Your task to perform on an android device: delete browsing data in the chrome app Image 0: 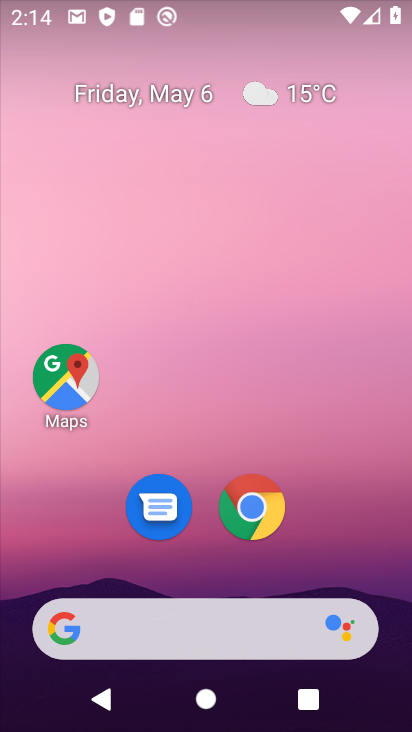
Step 0: click (230, 510)
Your task to perform on an android device: delete browsing data in the chrome app Image 1: 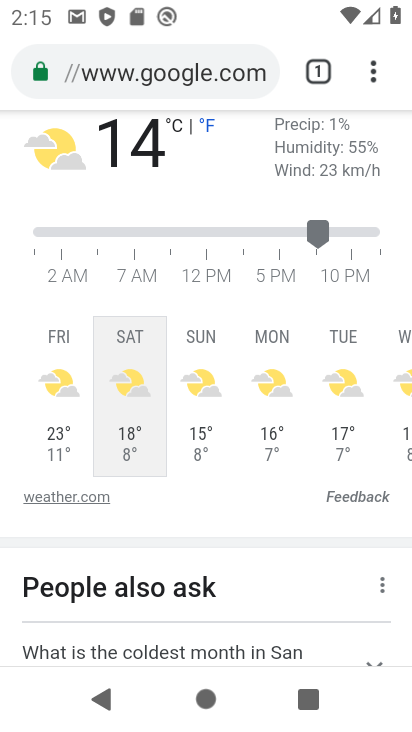
Step 1: click (192, 71)
Your task to perform on an android device: delete browsing data in the chrome app Image 2: 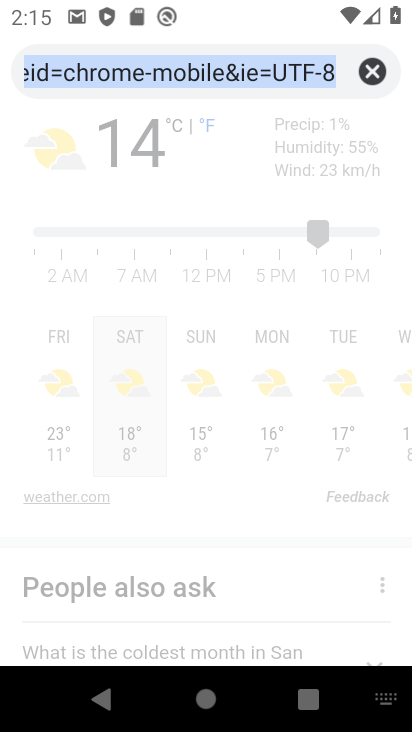
Step 2: click (373, 72)
Your task to perform on an android device: delete browsing data in the chrome app Image 3: 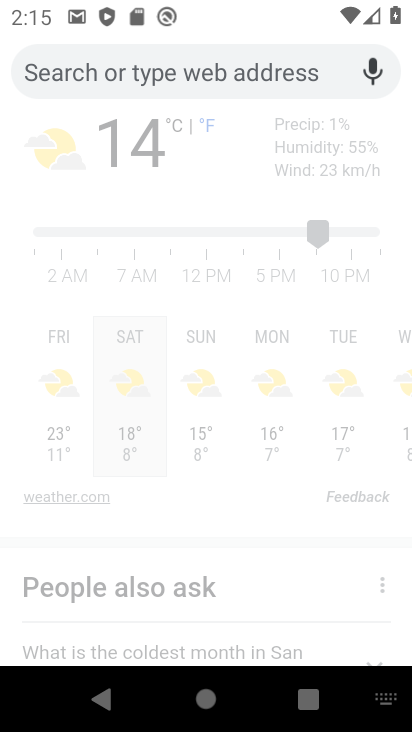
Step 3: press back button
Your task to perform on an android device: delete browsing data in the chrome app Image 4: 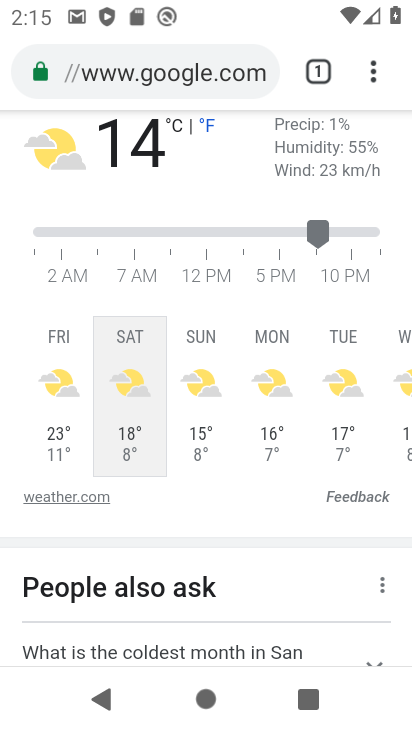
Step 4: click (372, 75)
Your task to perform on an android device: delete browsing data in the chrome app Image 5: 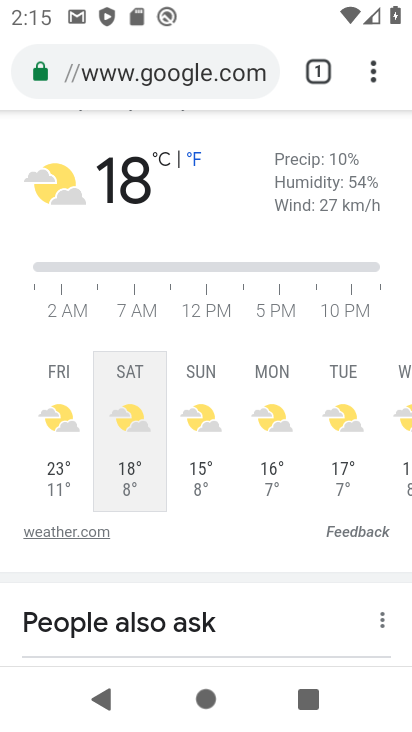
Step 5: drag from (374, 71) to (293, 406)
Your task to perform on an android device: delete browsing data in the chrome app Image 6: 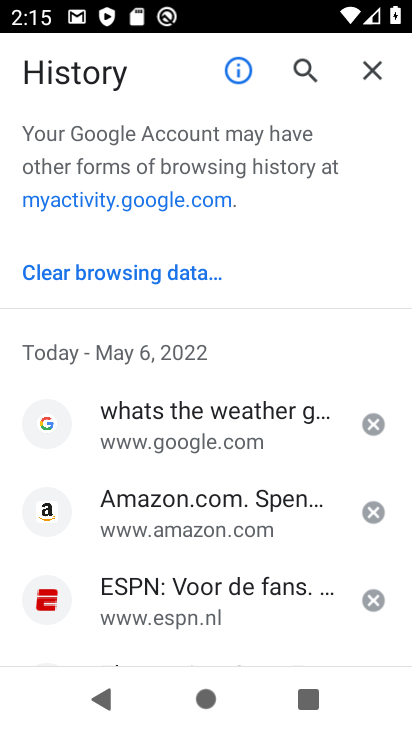
Step 6: click (94, 274)
Your task to perform on an android device: delete browsing data in the chrome app Image 7: 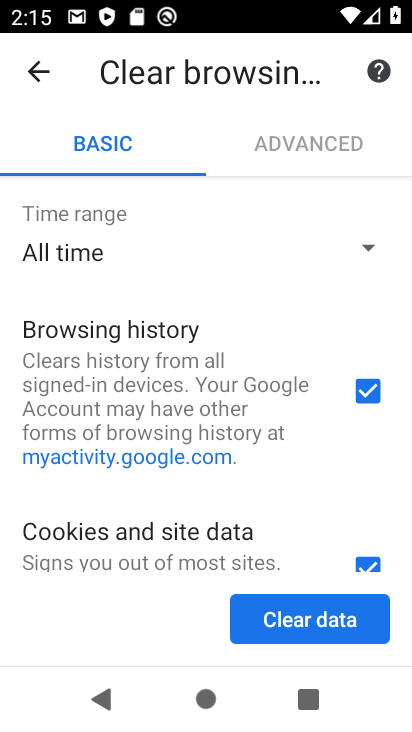
Step 7: click (357, 563)
Your task to perform on an android device: delete browsing data in the chrome app Image 8: 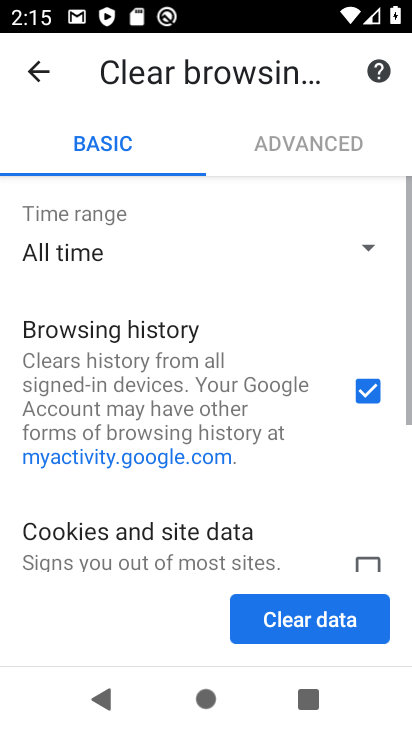
Step 8: click (344, 622)
Your task to perform on an android device: delete browsing data in the chrome app Image 9: 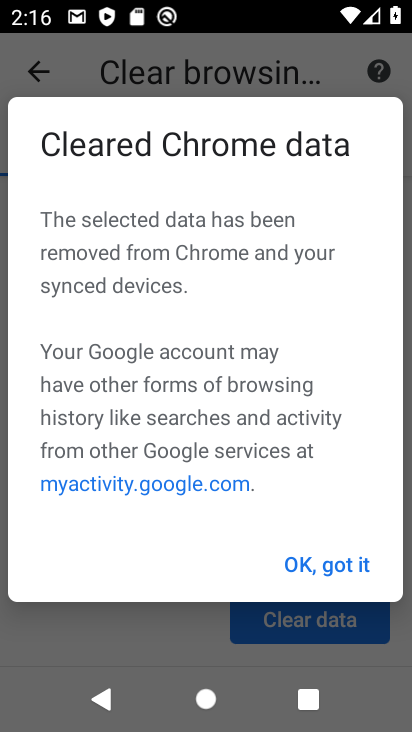
Step 9: click (338, 565)
Your task to perform on an android device: delete browsing data in the chrome app Image 10: 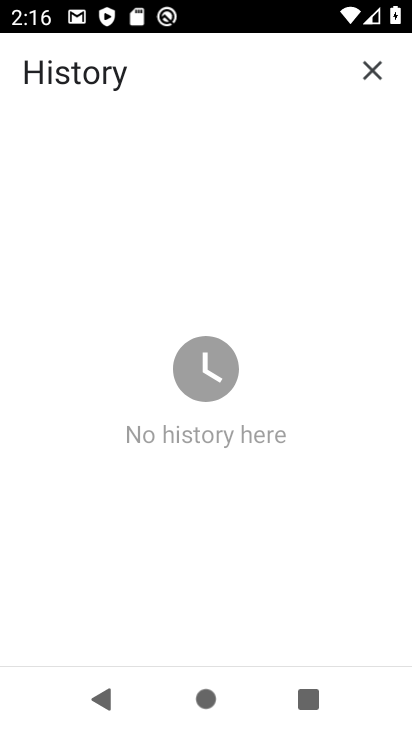
Step 10: task complete